Your task to perform on an android device: check data usage Image 0: 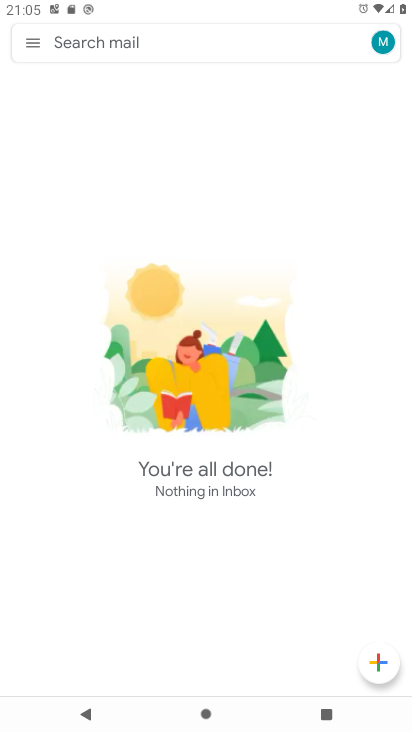
Step 0: press home button
Your task to perform on an android device: check data usage Image 1: 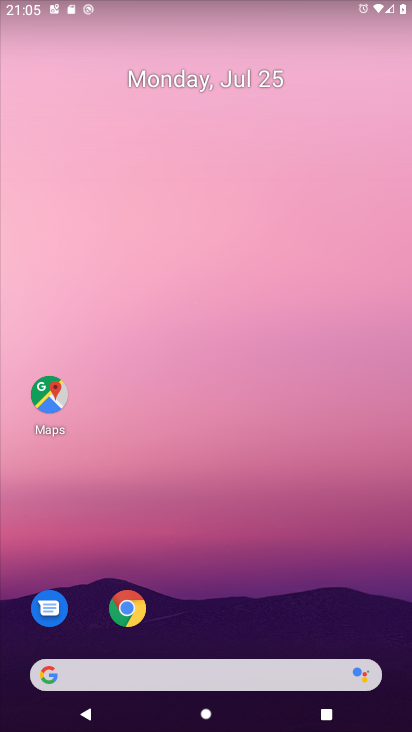
Step 1: drag from (246, 640) to (262, 39)
Your task to perform on an android device: check data usage Image 2: 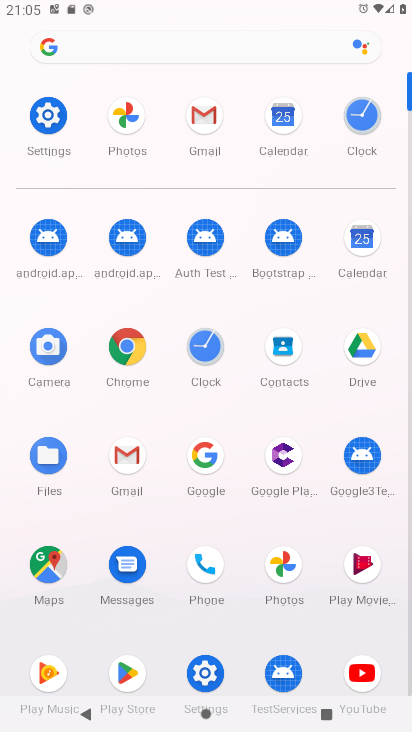
Step 2: click (44, 114)
Your task to perform on an android device: check data usage Image 3: 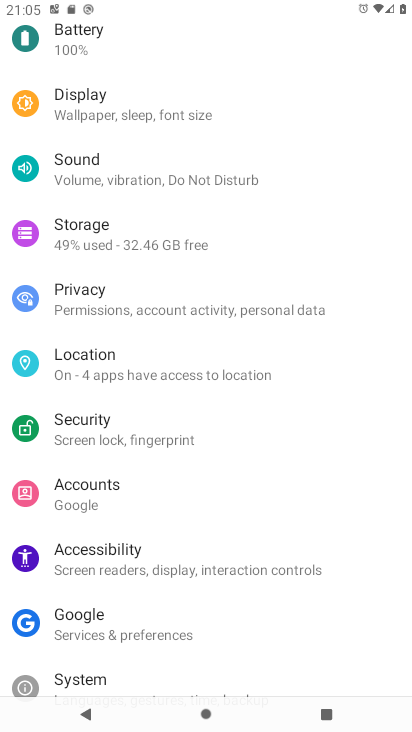
Step 3: drag from (147, 59) to (227, 687)
Your task to perform on an android device: check data usage Image 4: 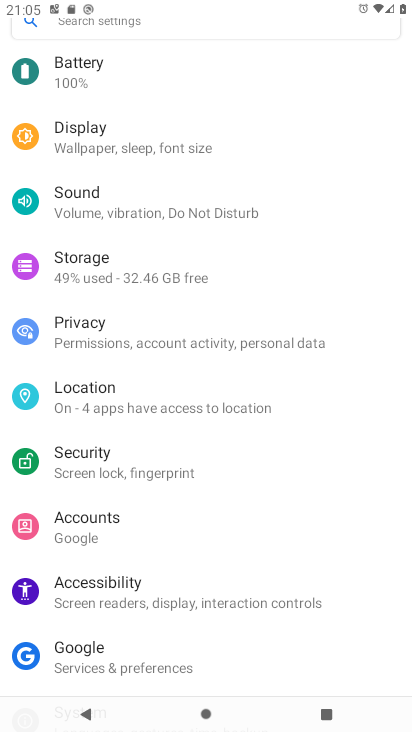
Step 4: drag from (261, 504) to (262, 545)
Your task to perform on an android device: check data usage Image 5: 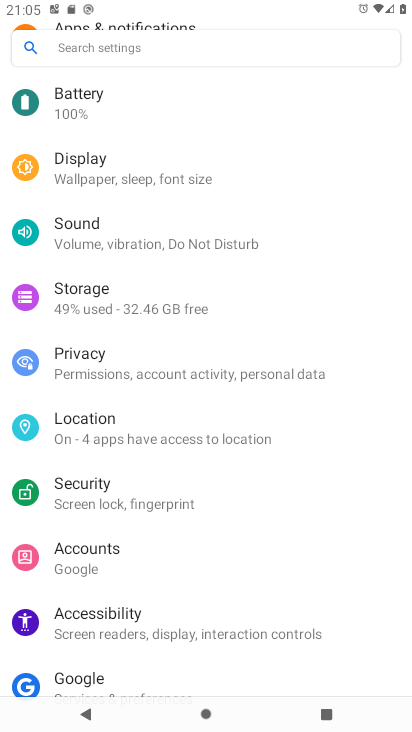
Step 5: drag from (270, 245) to (261, 679)
Your task to perform on an android device: check data usage Image 6: 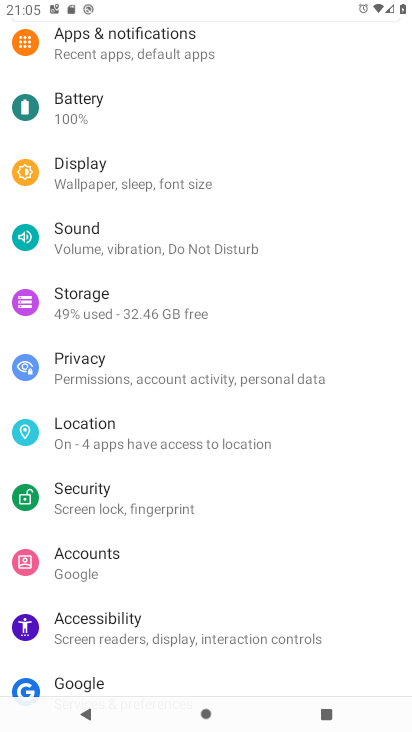
Step 6: drag from (206, 250) to (207, 642)
Your task to perform on an android device: check data usage Image 7: 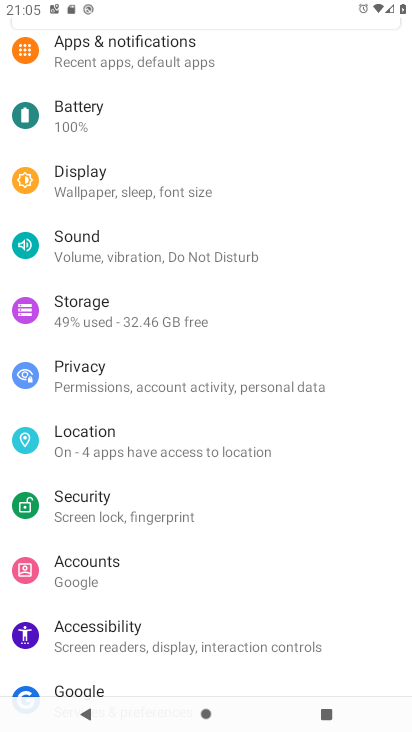
Step 7: drag from (203, 165) to (220, 583)
Your task to perform on an android device: check data usage Image 8: 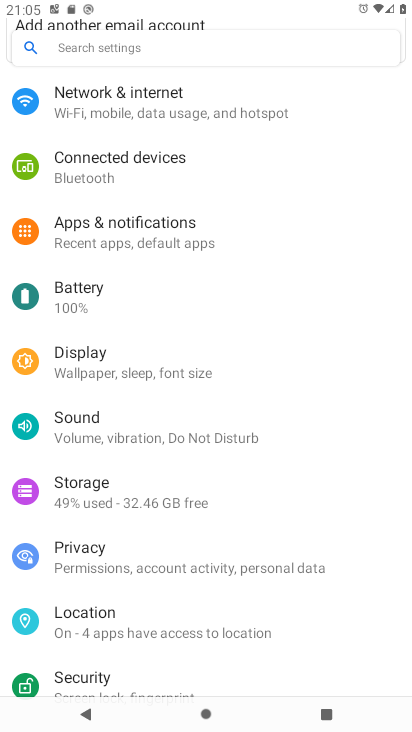
Step 8: click (196, 115)
Your task to perform on an android device: check data usage Image 9: 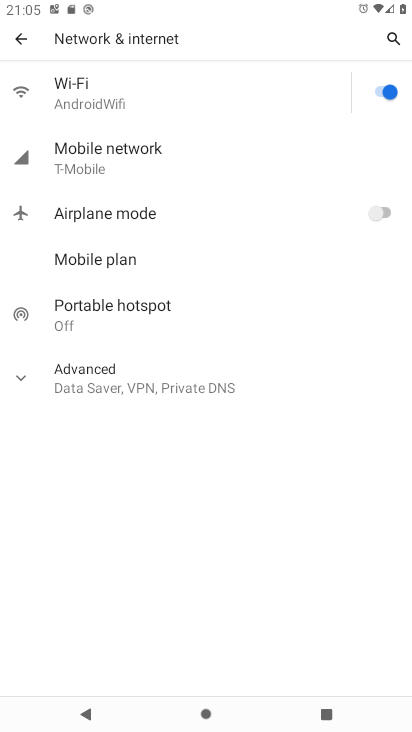
Step 9: click (176, 165)
Your task to perform on an android device: check data usage Image 10: 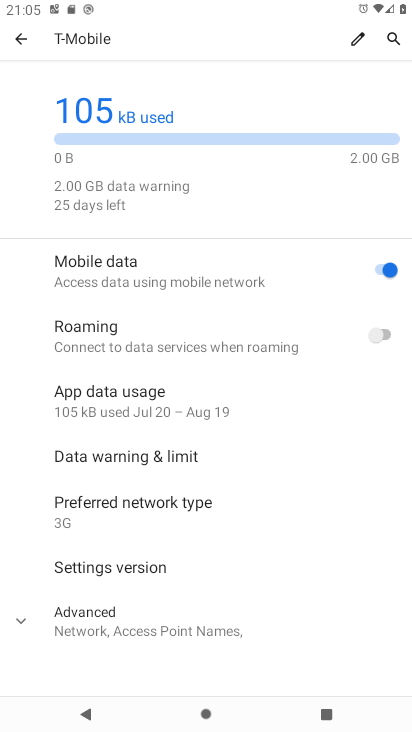
Step 10: click (121, 400)
Your task to perform on an android device: check data usage Image 11: 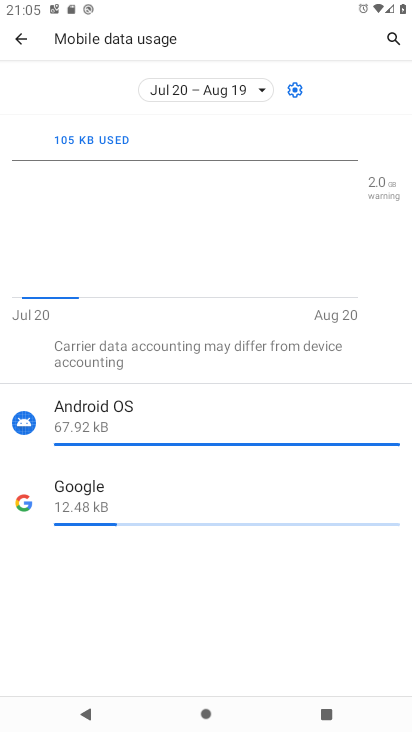
Step 11: task complete